Your task to perform on an android device: change keyboard looks Image 0: 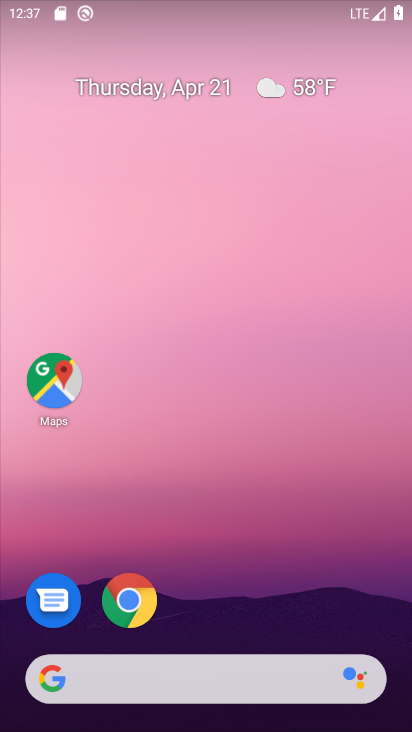
Step 0: drag from (279, 578) to (300, 118)
Your task to perform on an android device: change keyboard looks Image 1: 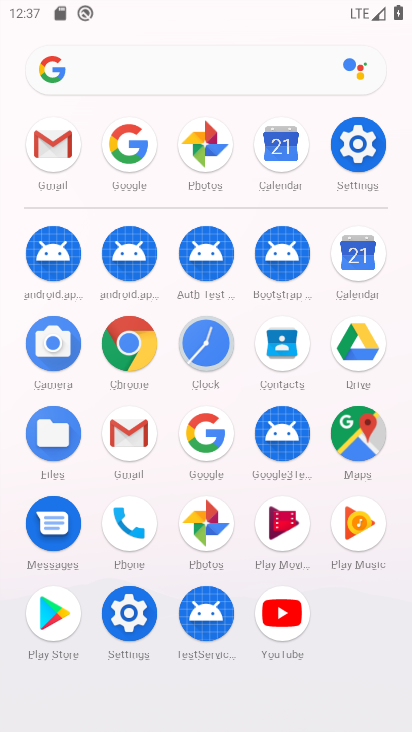
Step 1: click (131, 611)
Your task to perform on an android device: change keyboard looks Image 2: 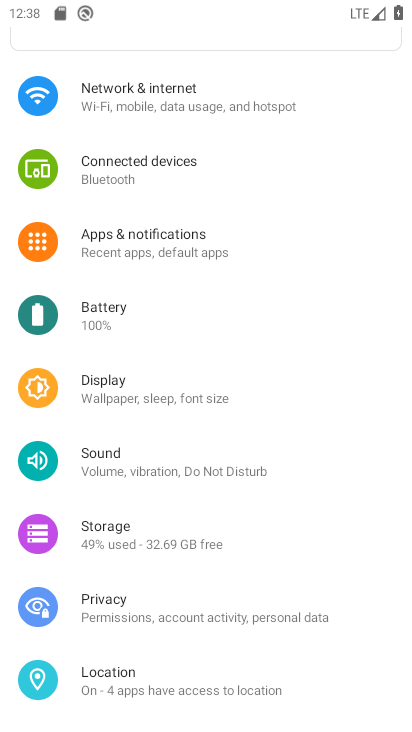
Step 2: drag from (186, 535) to (176, 180)
Your task to perform on an android device: change keyboard looks Image 3: 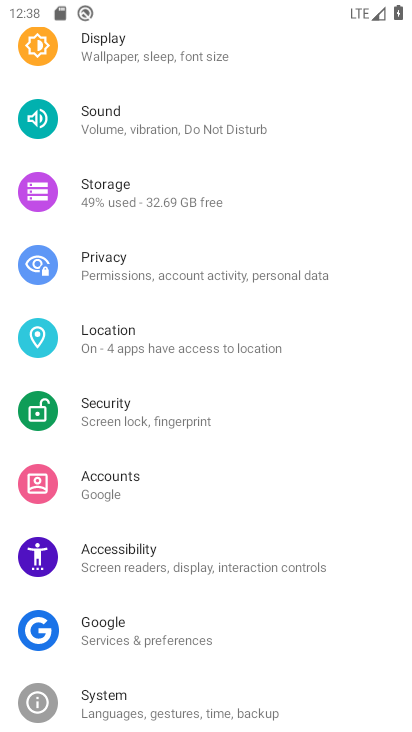
Step 3: click (150, 697)
Your task to perform on an android device: change keyboard looks Image 4: 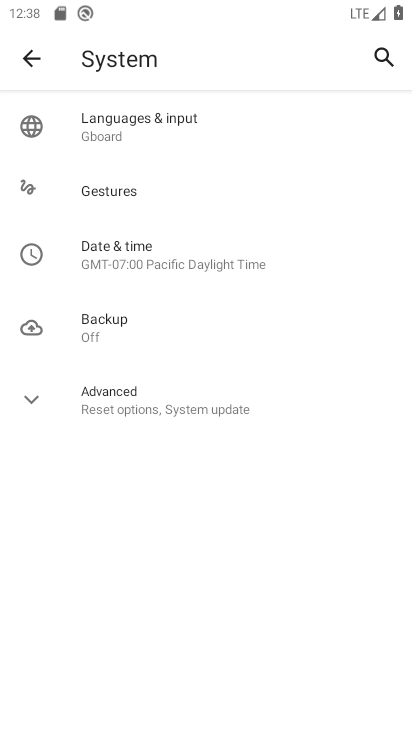
Step 4: click (174, 127)
Your task to perform on an android device: change keyboard looks Image 5: 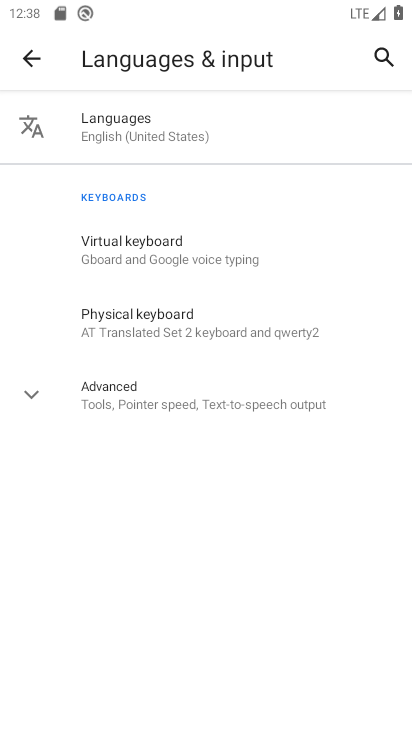
Step 5: click (164, 244)
Your task to perform on an android device: change keyboard looks Image 6: 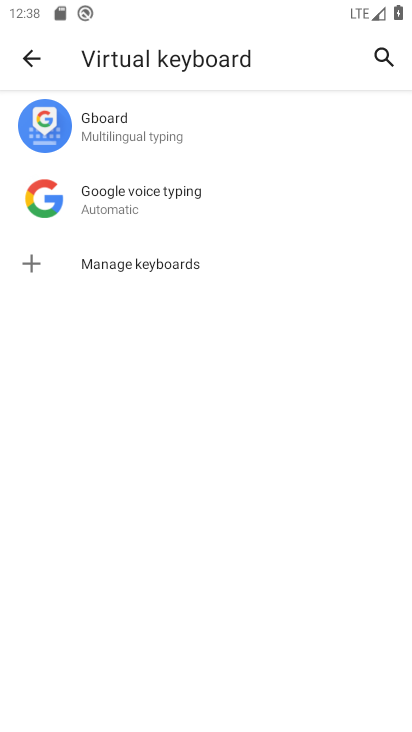
Step 6: click (155, 143)
Your task to perform on an android device: change keyboard looks Image 7: 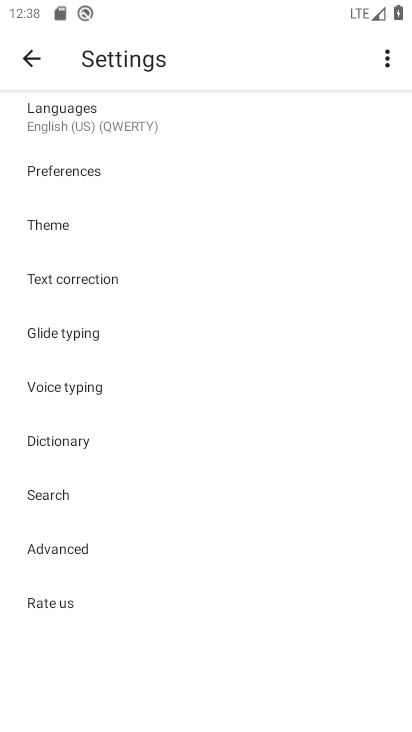
Step 7: click (88, 222)
Your task to perform on an android device: change keyboard looks Image 8: 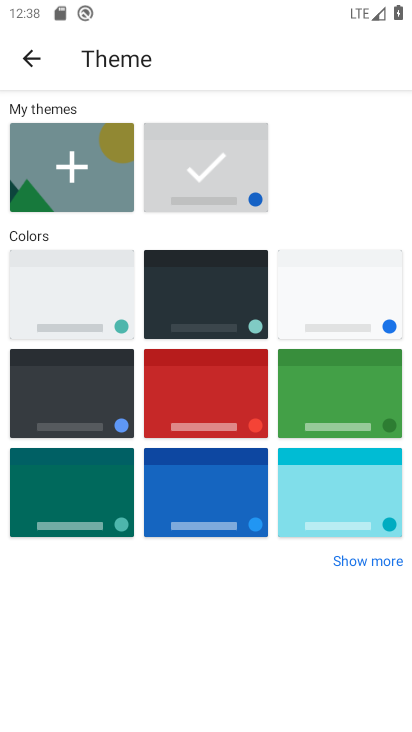
Step 8: click (75, 280)
Your task to perform on an android device: change keyboard looks Image 9: 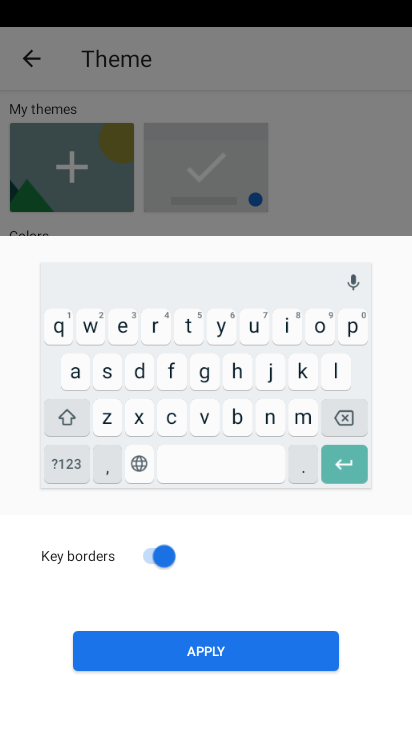
Step 9: click (204, 647)
Your task to perform on an android device: change keyboard looks Image 10: 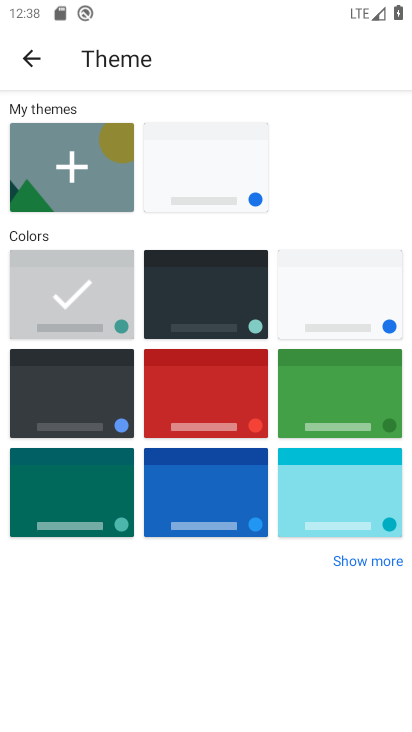
Step 10: task complete